Your task to perform on an android device: Go to display settings Image 0: 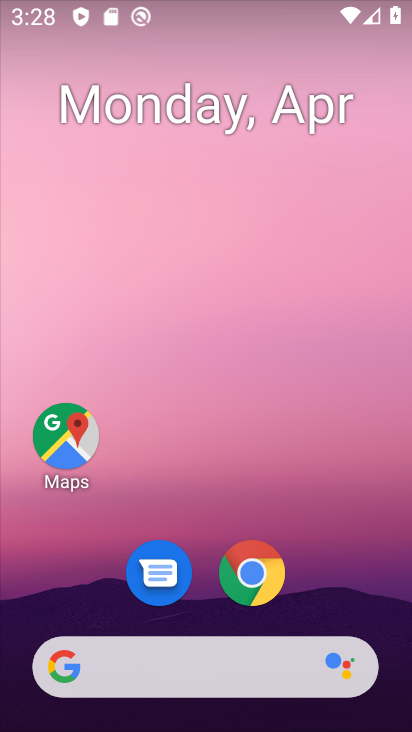
Step 0: drag from (370, 552) to (365, 50)
Your task to perform on an android device: Go to display settings Image 1: 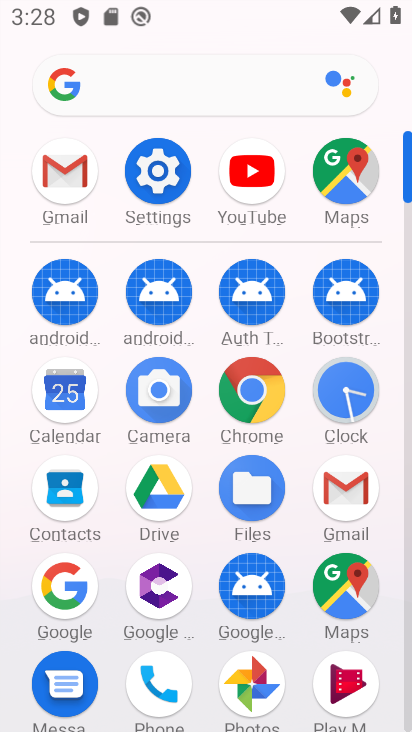
Step 1: click (154, 177)
Your task to perform on an android device: Go to display settings Image 2: 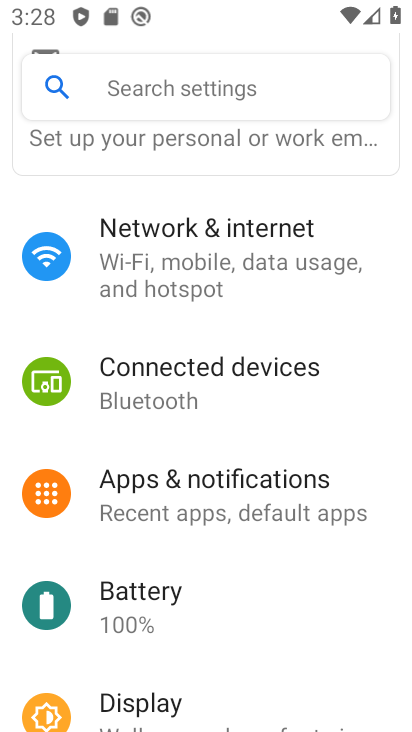
Step 2: drag from (362, 624) to (362, 458)
Your task to perform on an android device: Go to display settings Image 3: 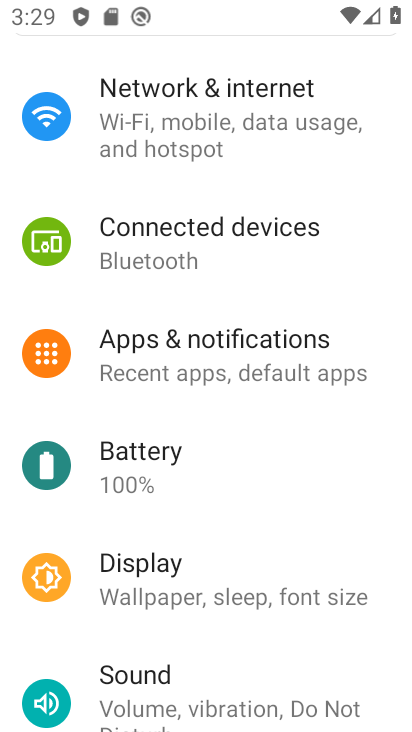
Step 3: drag from (359, 633) to (369, 475)
Your task to perform on an android device: Go to display settings Image 4: 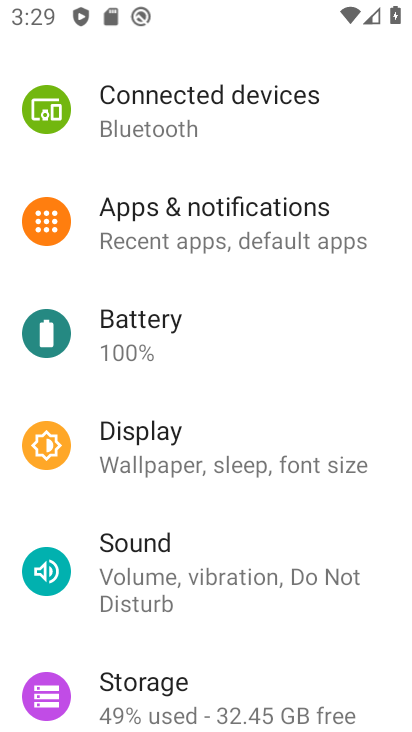
Step 4: drag from (358, 652) to (356, 479)
Your task to perform on an android device: Go to display settings Image 5: 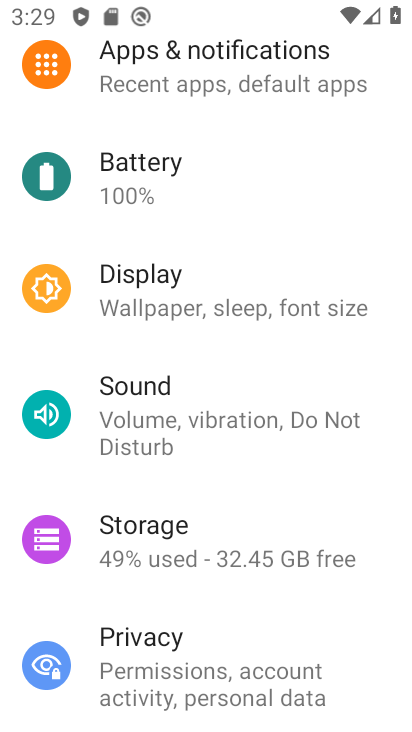
Step 5: drag from (348, 646) to (349, 499)
Your task to perform on an android device: Go to display settings Image 6: 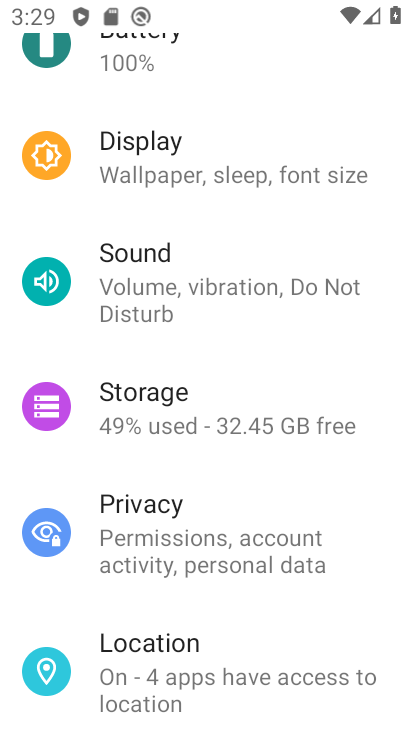
Step 6: drag from (345, 626) to (353, 462)
Your task to perform on an android device: Go to display settings Image 7: 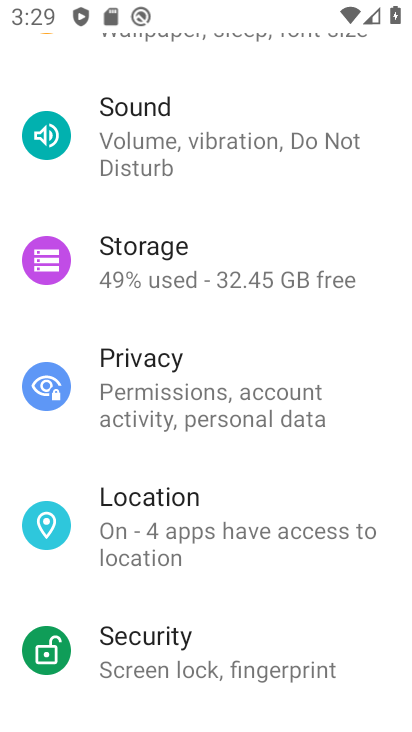
Step 7: drag from (358, 679) to (364, 483)
Your task to perform on an android device: Go to display settings Image 8: 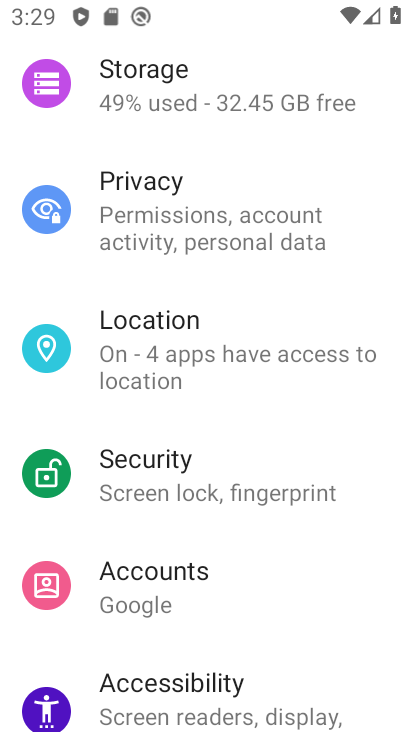
Step 8: drag from (347, 652) to (351, 470)
Your task to perform on an android device: Go to display settings Image 9: 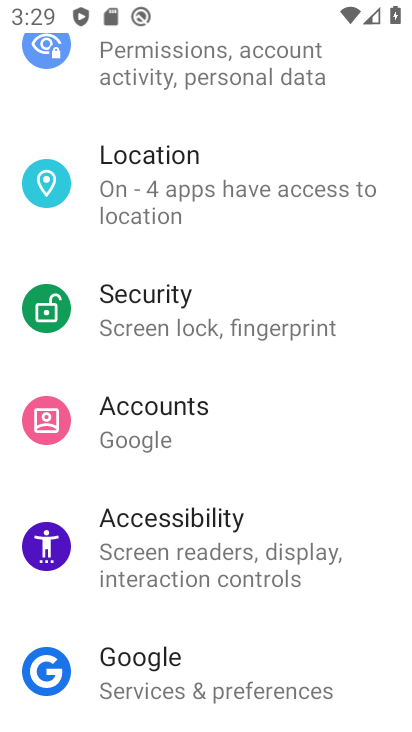
Step 9: drag from (360, 546) to (374, 226)
Your task to perform on an android device: Go to display settings Image 10: 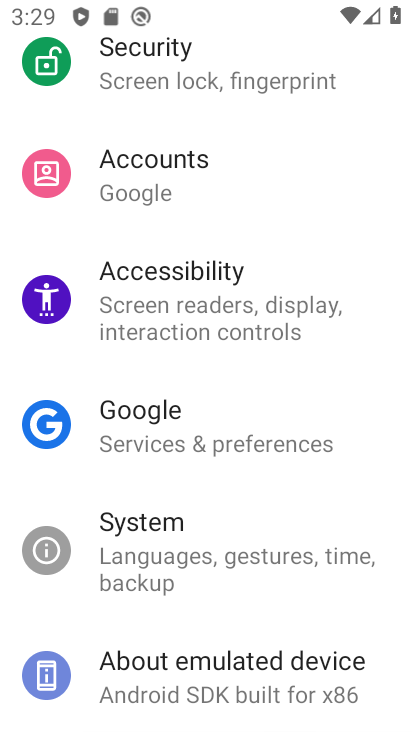
Step 10: drag from (368, 199) to (355, 384)
Your task to perform on an android device: Go to display settings Image 11: 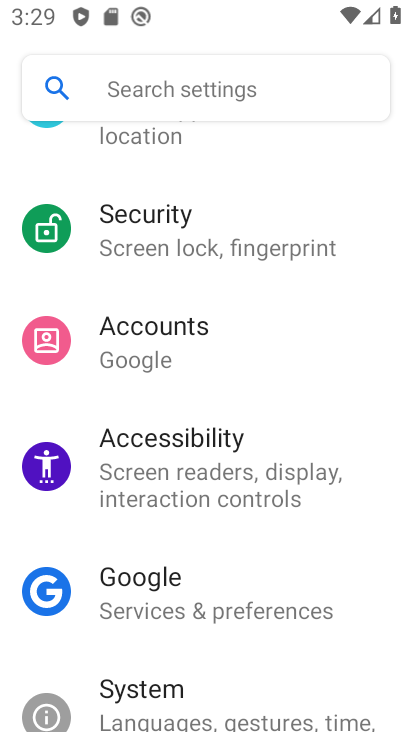
Step 11: drag from (368, 196) to (361, 356)
Your task to perform on an android device: Go to display settings Image 12: 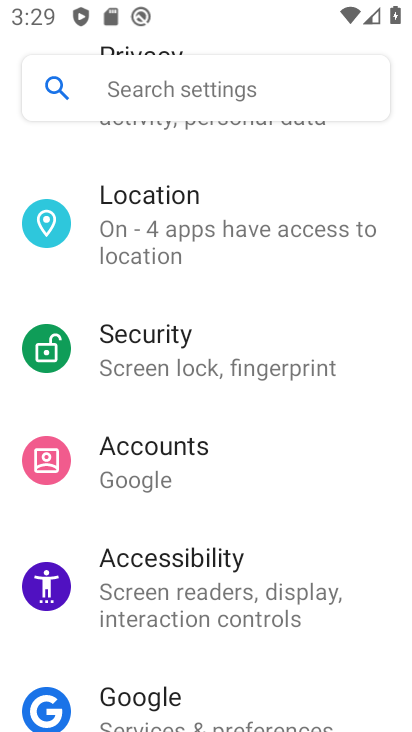
Step 12: drag from (370, 171) to (356, 365)
Your task to perform on an android device: Go to display settings Image 13: 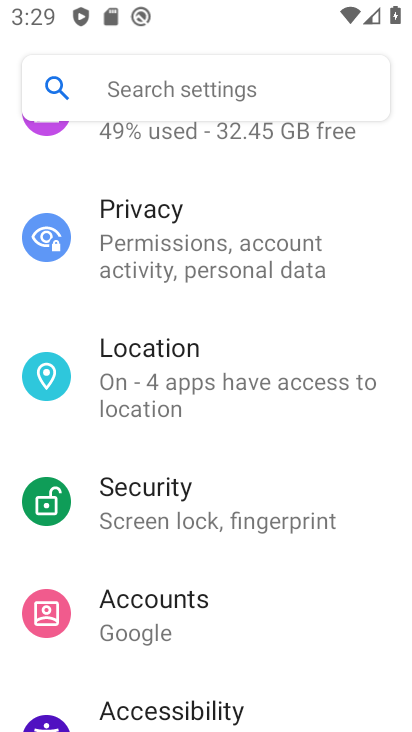
Step 13: drag from (357, 198) to (356, 361)
Your task to perform on an android device: Go to display settings Image 14: 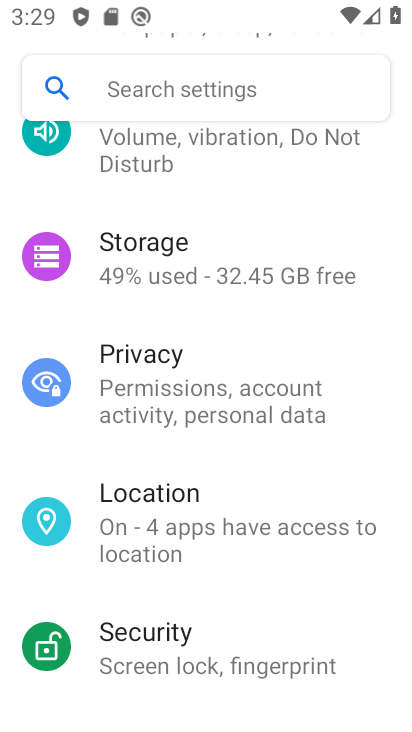
Step 14: drag from (360, 202) to (366, 421)
Your task to perform on an android device: Go to display settings Image 15: 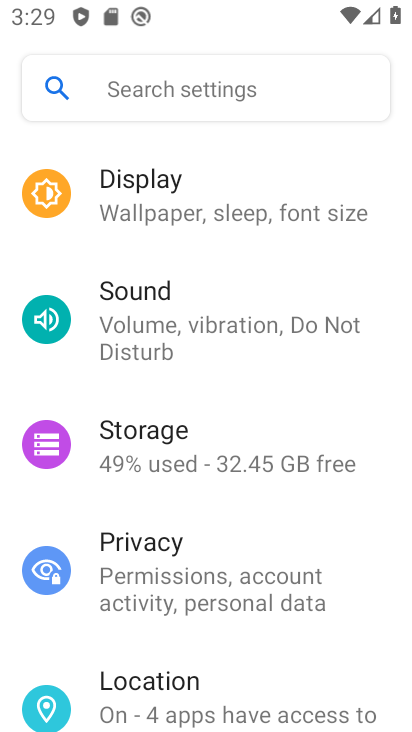
Step 15: click (268, 206)
Your task to perform on an android device: Go to display settings Image 16: 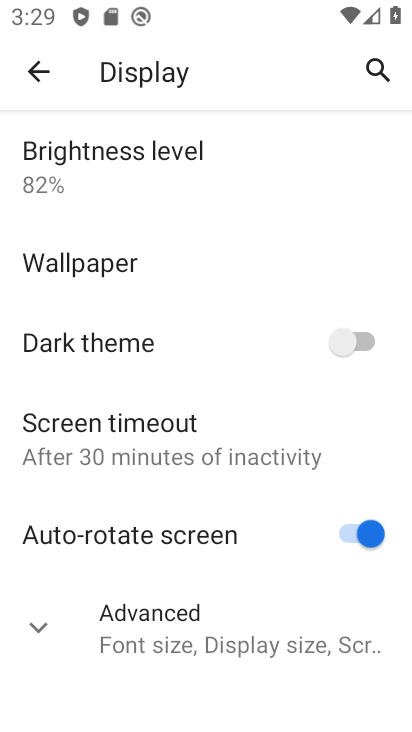
Step 16: click (201, 622)
Your task to perform on an android device: Go to display settings Image 17: 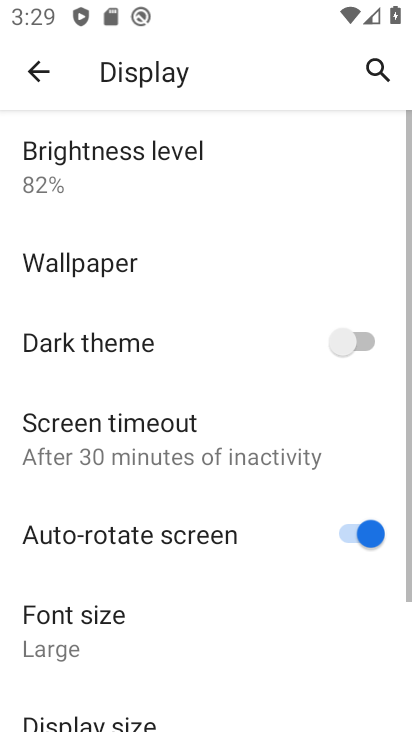
Step 17: task complete